Your task to perform on an android device: Open calendar and show me the fourth week of next month Image 0: 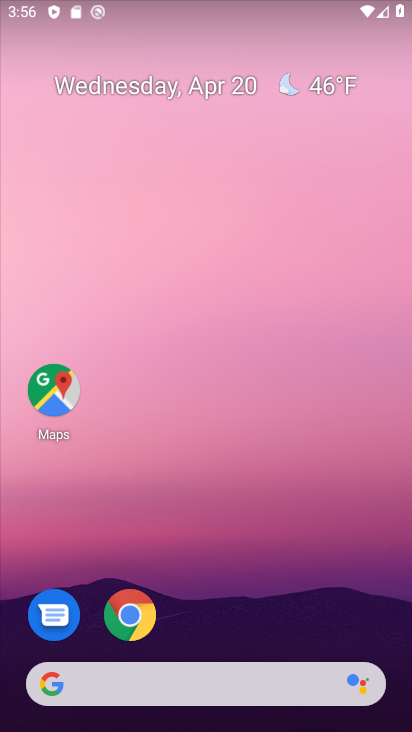
Step 0: drag from (213, 524) to (281, 74)
Your task to perform on an android device: Open calendar and show me the fourth week of next month Image 1: 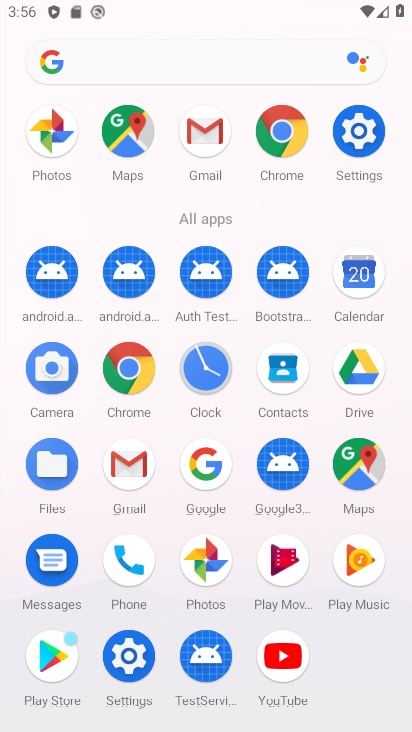
Step 1: click (358, 272)
Your task to perform on an android device: Open calendar and show me the fourth week of next month Image 2: 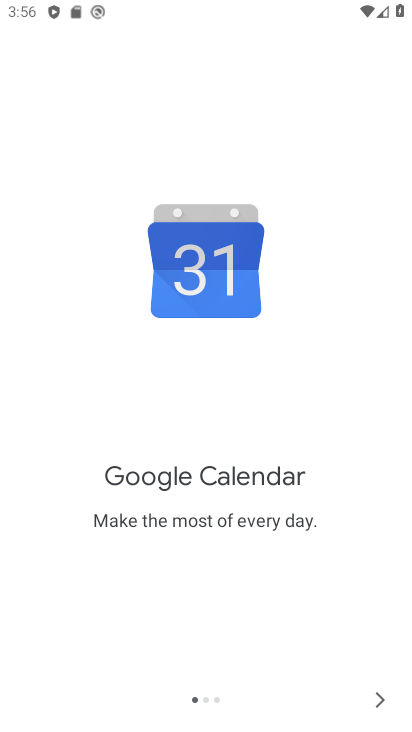
Step 2: click (386, 693)
Your task to perform on an android device: Open calendar and show me the fourth week of next month Image 3: 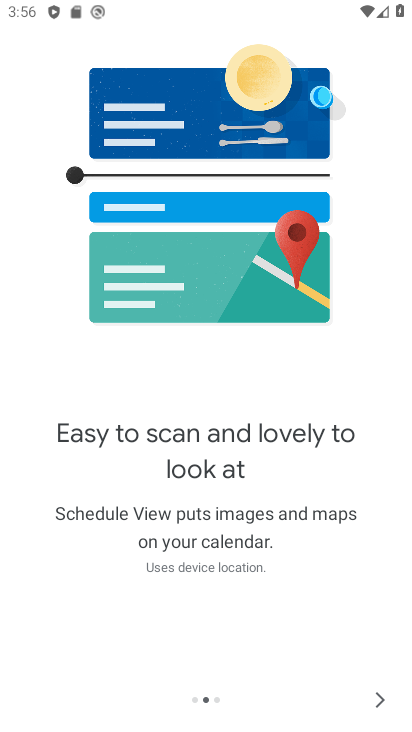
Step 3: click (389, 701)
Your task to perform on an android device: Open calendar and show me the fourth week of next month Image 4: 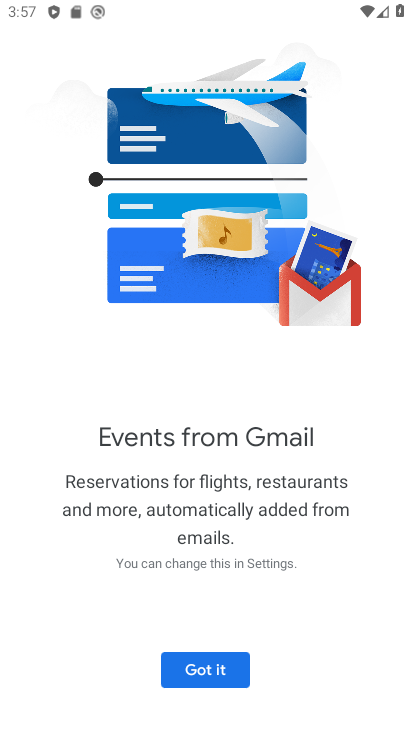
Step 4: click (201, 666)
Your task to perform on an android device: Open calendar and show me the fourth week of next month Image 5: 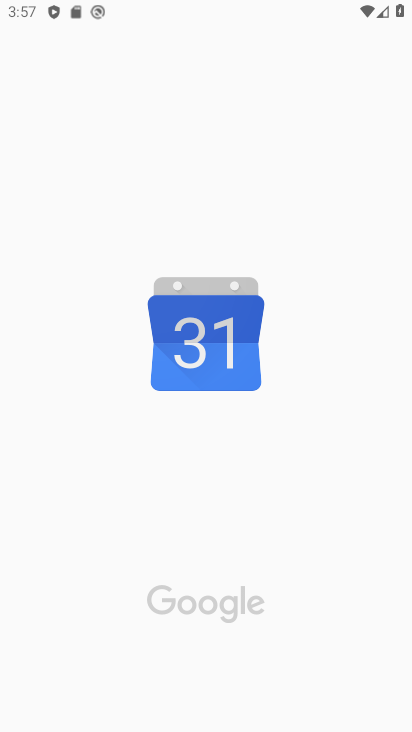
Step 5: press back button
Your task to perform on an android device: Open calendar and show me the fourth week of next month Image 6: 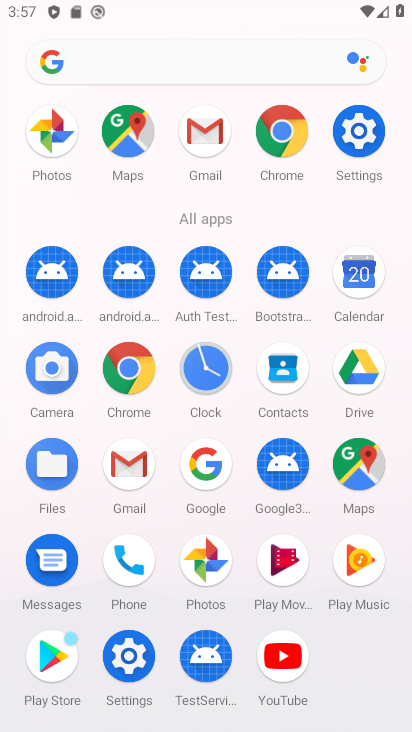
Step 6: click (360, 279)
Your task to perform on an android device: Open calendar and show me the fourth week of next month Image 7: 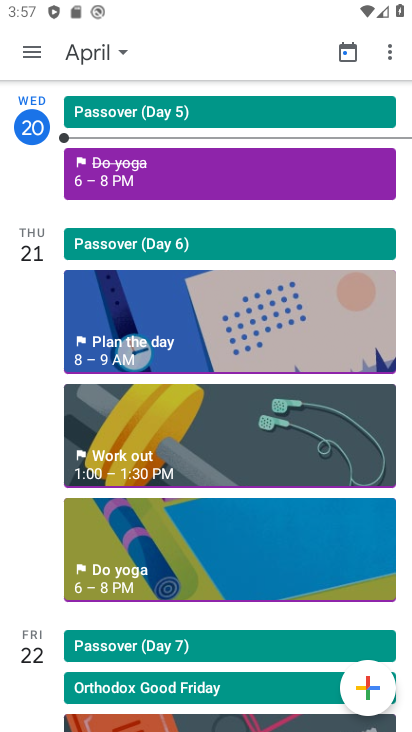
Step 7: click (117, 57)
Your task to perform on an android device: Open calendar and show me the fourth week of next month Image 8: 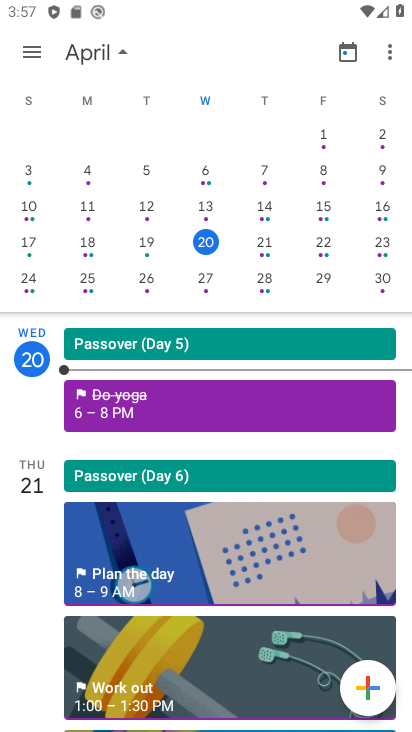
Step 8: drag from (333, 224) to (4, 184)
Your task to perform on an android device: Open calendar and show me the fourth week of next month Image 9: 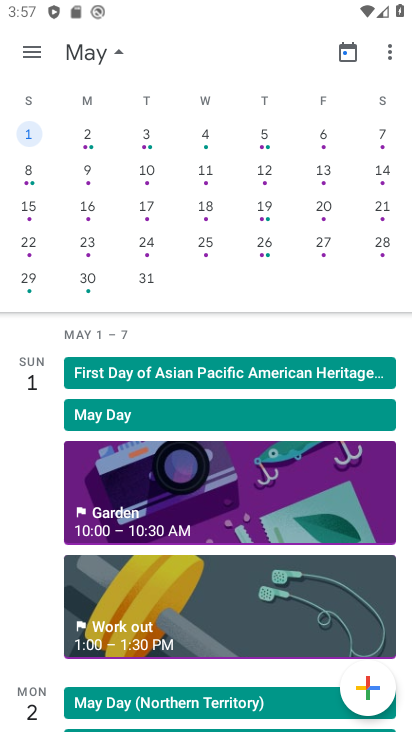
Step 9: click (90, 248)
Your task to perform on an android device: Open calendar and show me the fourth week of next month Image 10: 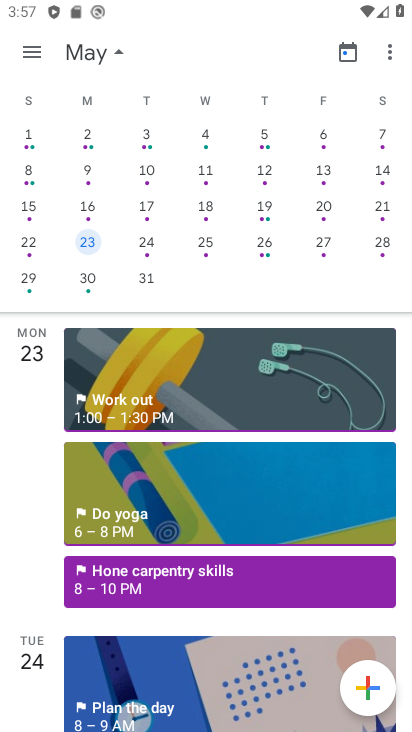
Step 10: task complete